Your task to perform on an android device: turn on improve location accuracy Image 0: 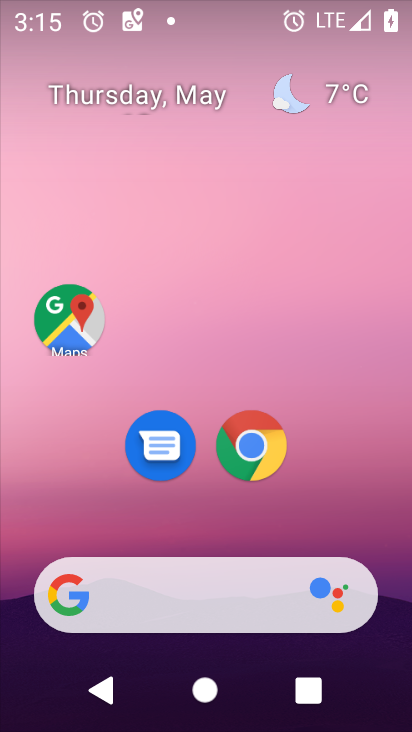
Step 0: drag from (385, 527) to (387, 6)
Your task to perform on an android device: turn on improve location accuracy Image 1: 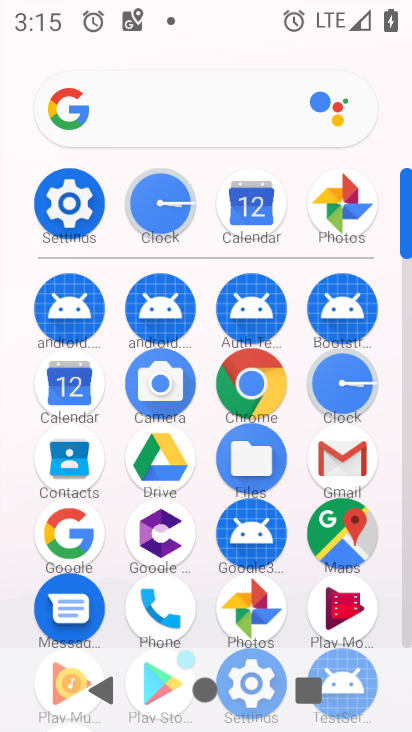
Step 1: click (73, 213)
Your task to perform on an android device: turn on improve location accuracy Image 2: 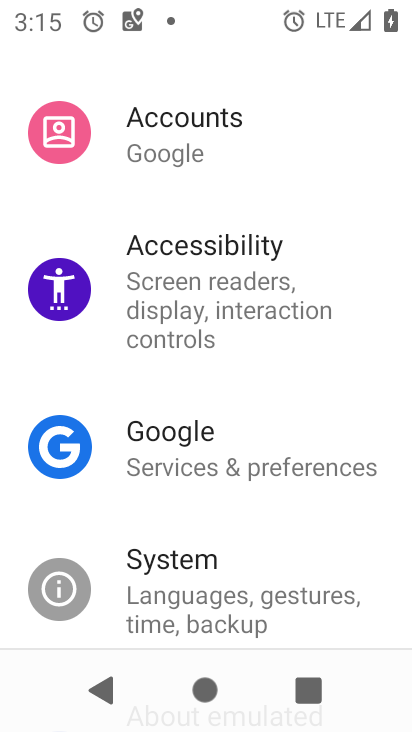
Step 2: drag from (386, 246) to (390, 532)
Your task to perform on an android device: turn on improve location accuracy Image 3: 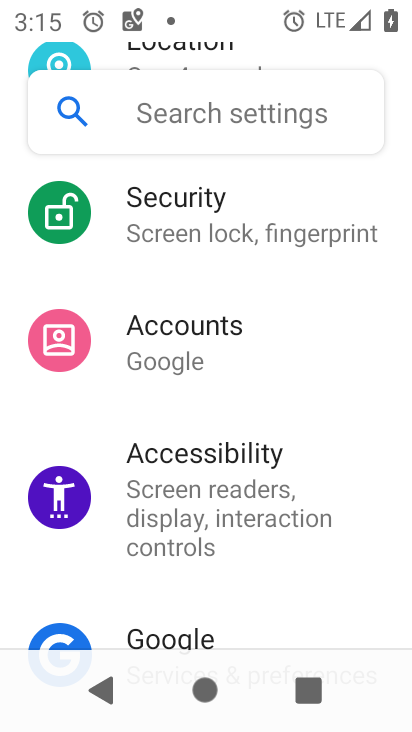
Step 3: drag from (366, 331) to (348, 587)
Your task to perform on an android device: turn on improve location accuracy Image 4: 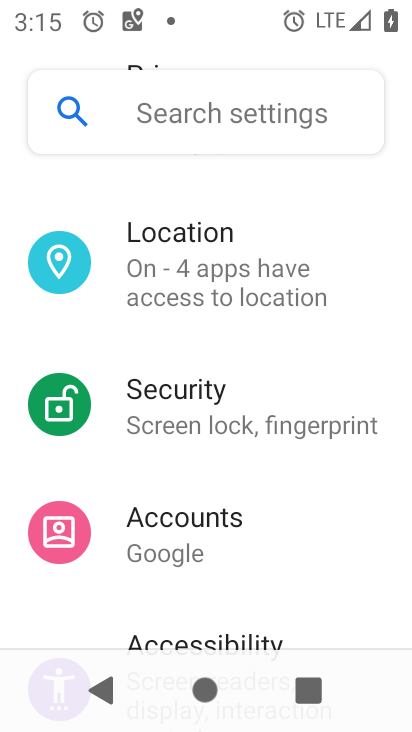
Step 4: click (176, 279)
Your task to perform on an android device: turn on improve location accuracy Image 5: 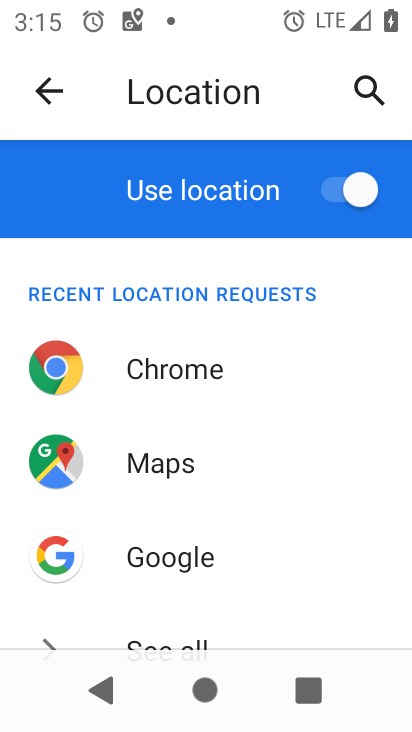
Step 5: drag from (272, 524) to (255, 62)
Your task to perform on an android device: turn on improve location accuracy Image 6: 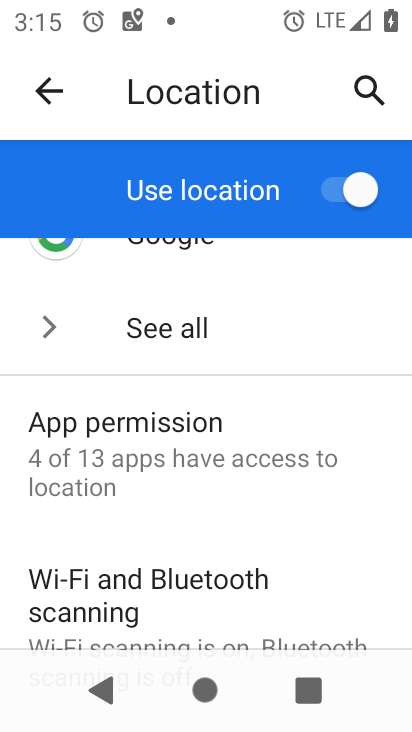
Step 6: drag from (180, 493) to (187, 232)
Your task to perform on an android device: turn on improve location accuracy Image 7: 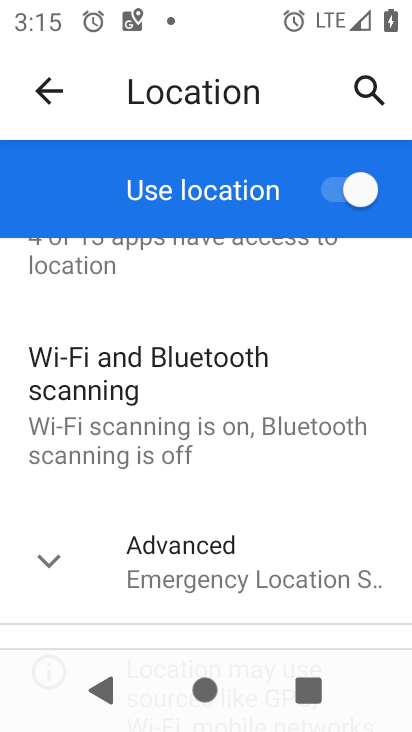
Step 7: click (51, 567)
Your task to perform on an android device: turn on improve location accuracy Image 8: 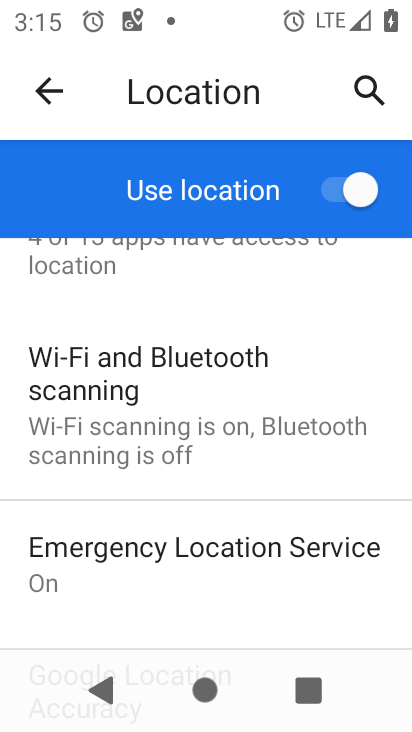
Step 8: drag from (196, 486) to (172, 222)
Your task to perform on an android device: turn on improve location accuracy Image 9: 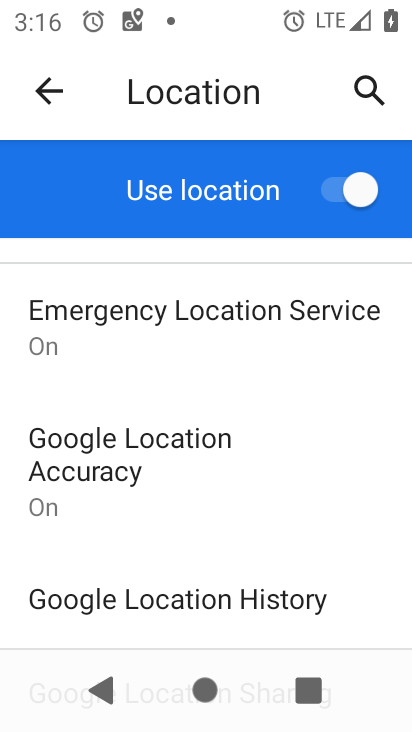
Step 9: click (92, 473)
Your task to perform on an android device: turn on improve location accuracy Image 10: 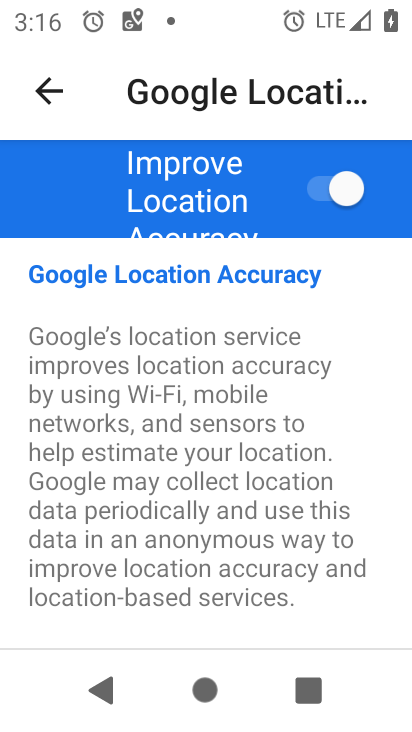
Step 10: task complete